Your task to perform on an android device: Open Wikipedia Image 0: 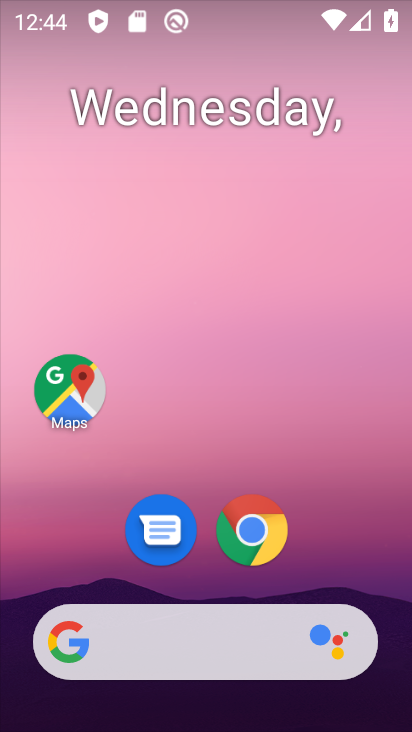
Step 0: drag from (380, 536) to (335, 119)
Your task to perform on an android device: Open Wikipedia Image 1: 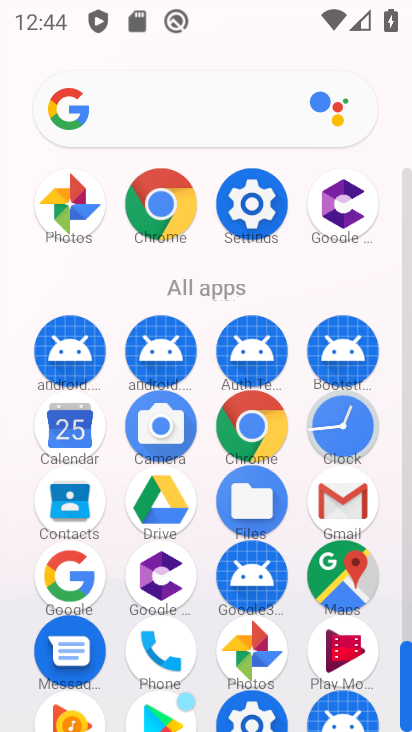
Step 1: click (188, 214)
Your task to perform on an android device: Open Wikipedia Image 2: 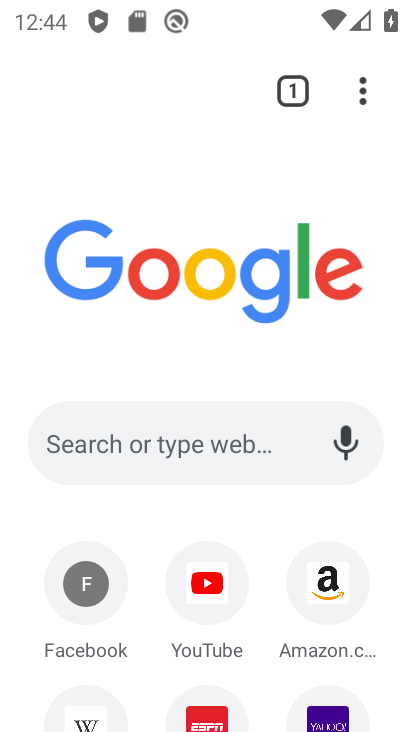
Step 2: drag from (128, 635) to (127, 292)
Your task to perform on an android device: Open Wikipedia Image 3: 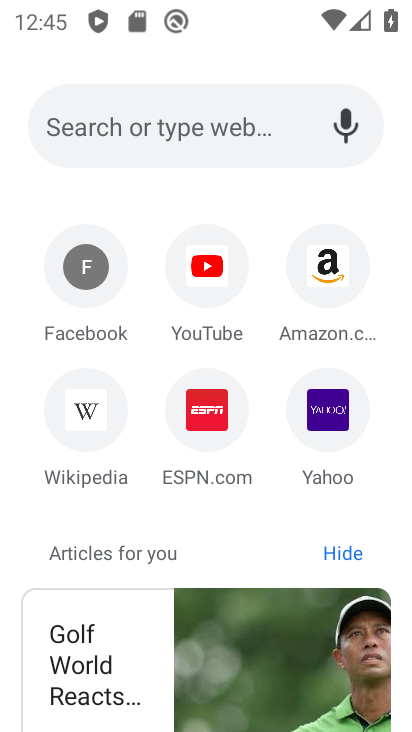
Step 3: click (68, 420)
Your task to perform on an android device: Open Wikipedia Image 4: 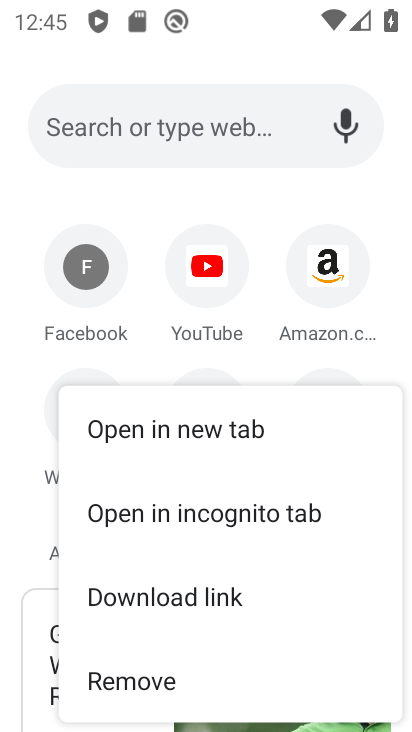
Step 4: click (6, 408)
Your task to perform on an android device: Open Wikipedia Image 5: 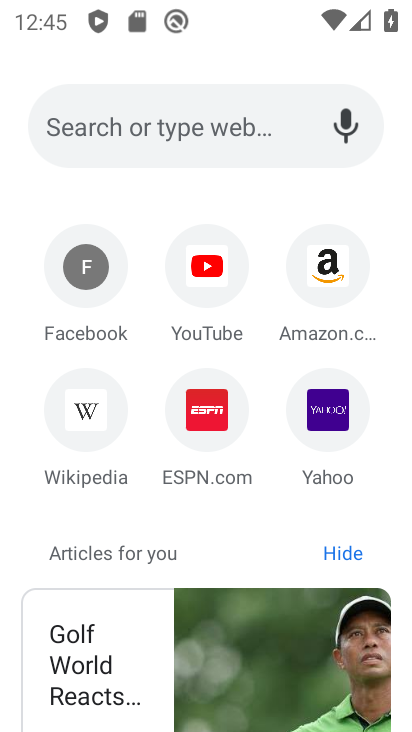
Step 5: click (67, 414)
Your task to perform on an android device: Open Wikipedia Image 6: 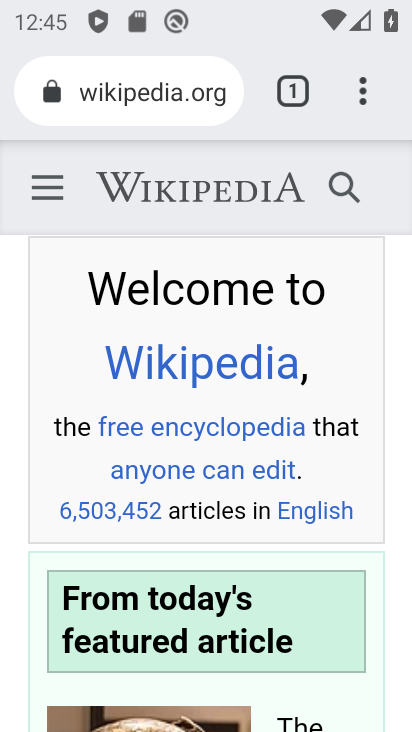
Step 6: task complete